Your task to perform on an android device: uninstall "Adobe Acrobat Reader" Image 0: 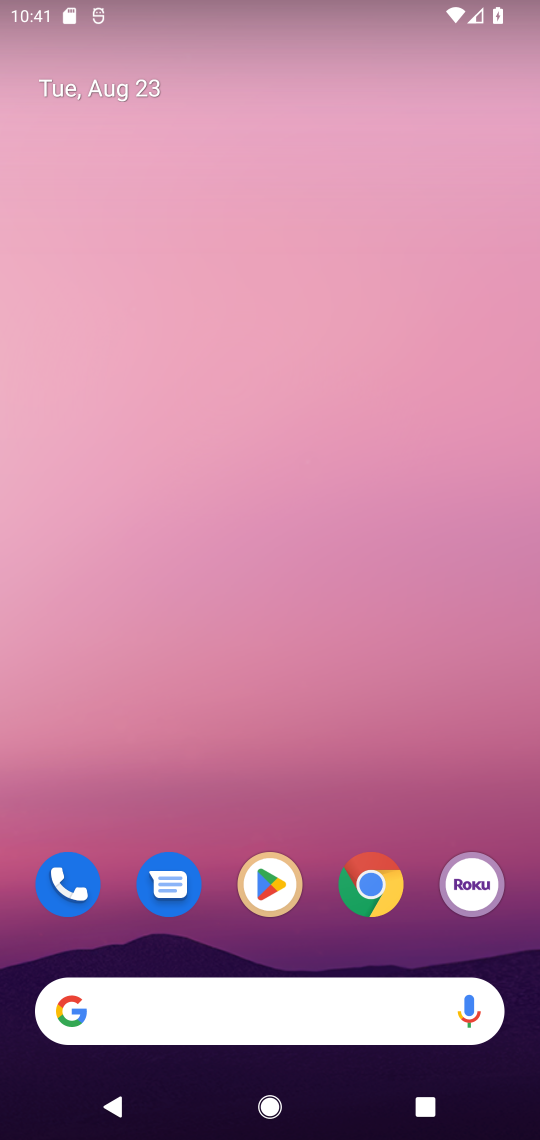
Step 0: click (271, 883)
Your task to perform on an android device: uninstall "Adobe Acrobat Reader" Image 1: 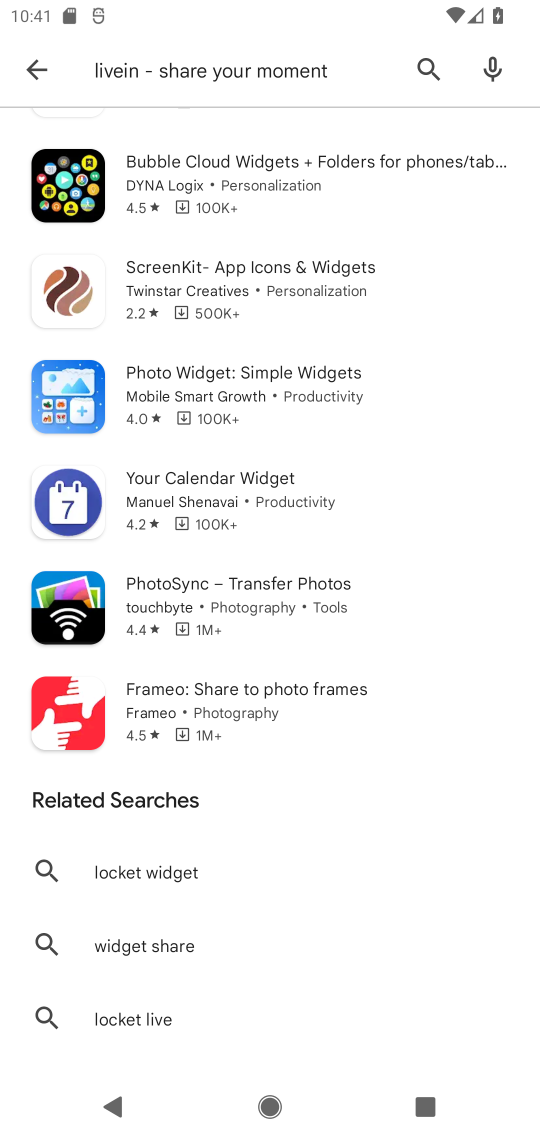
Step 1: click (422, 65)
Your task to perform on an android device: uninstall "Adobe Acrobat Reader" Image 2: 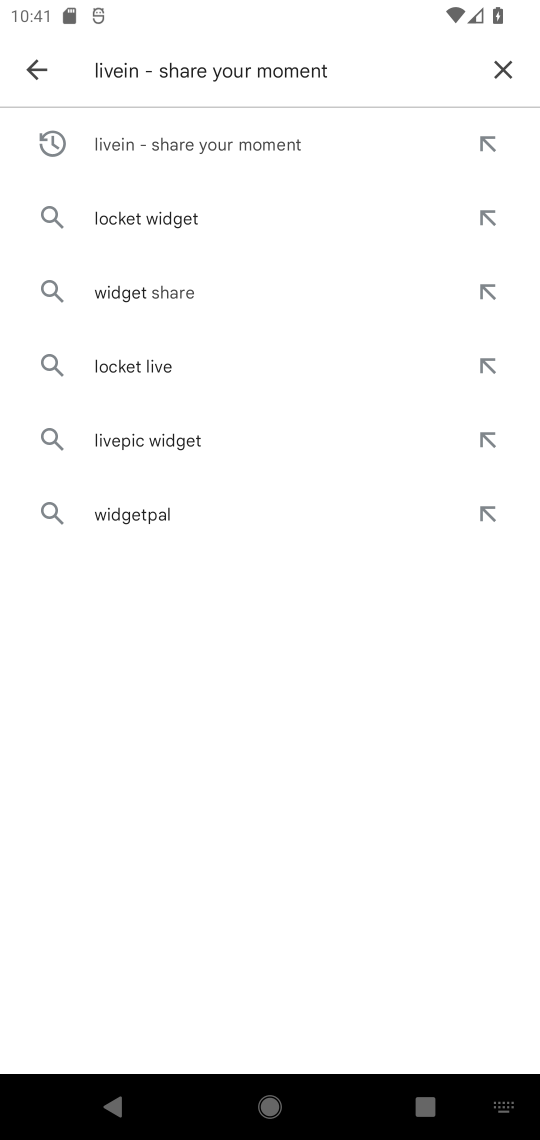
Step 2: click (502, 55)
Your task to perform on an android device: uninstall "Adobe Acrobat Reader" Image 3: 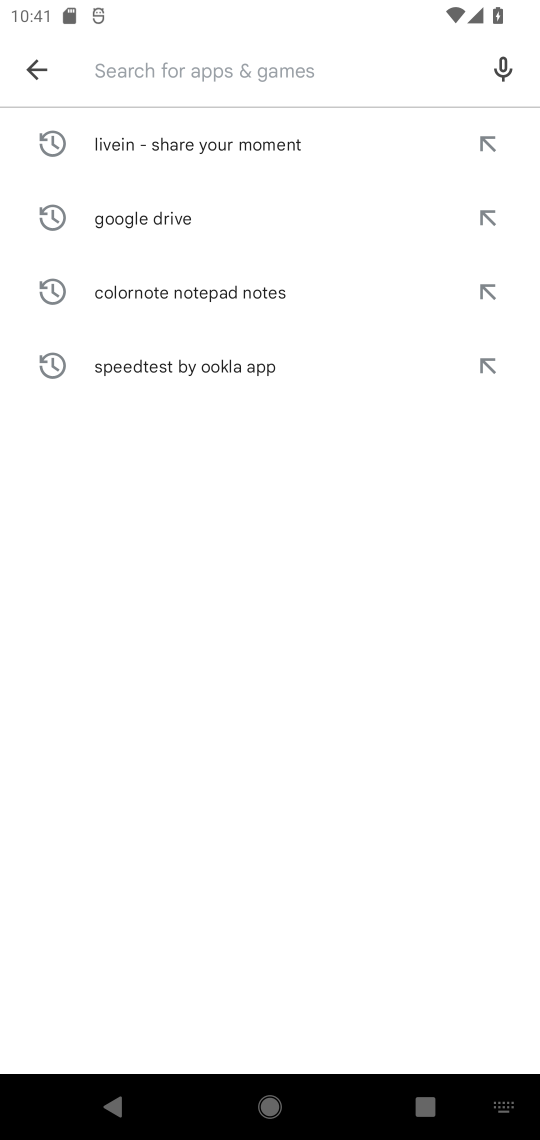
Step 3: type "Adobe Acrobat Reader"
Your task to perform on an android device: uninstall "Adobe Acrobat Reader" Image 4: 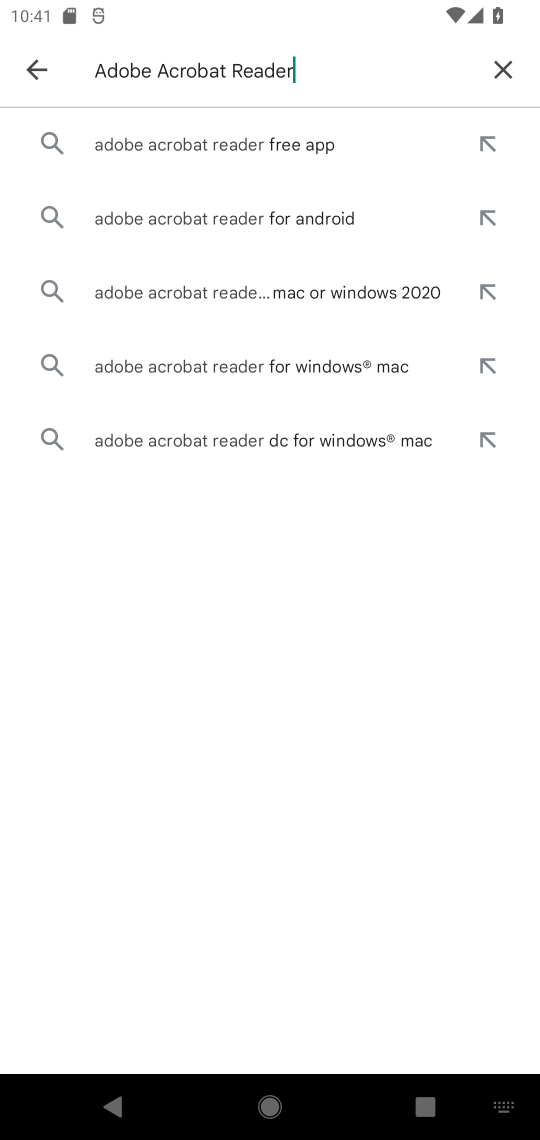
Step 4: click (177, 141)
Your task to perform on an android device: uninstall "Adobe Acrobat Reader" Image 5: 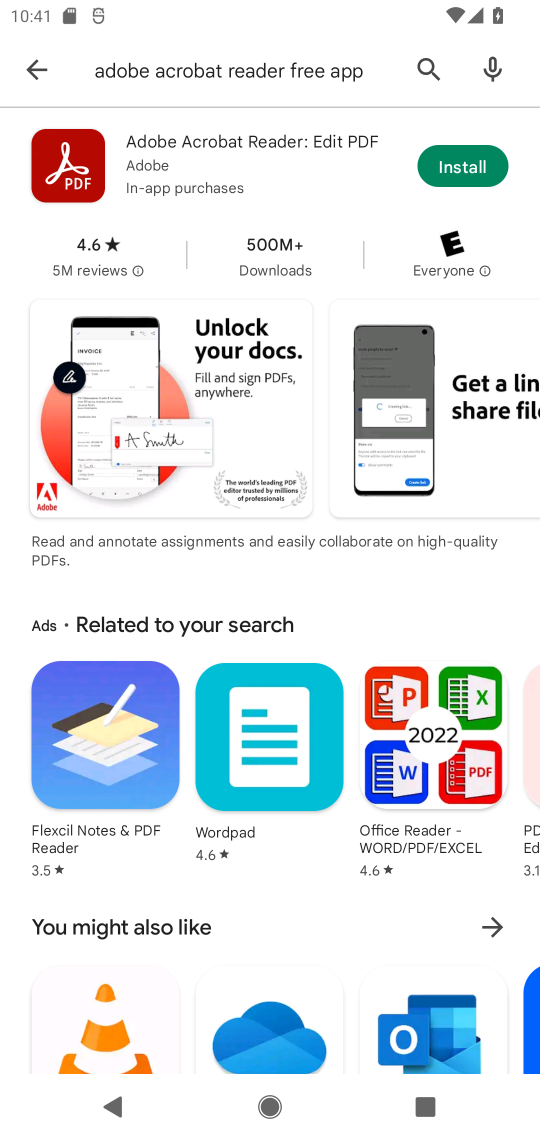
Step 5: task complete